Your task to perform on an android device: change notification settings in the gmail app Image 0: 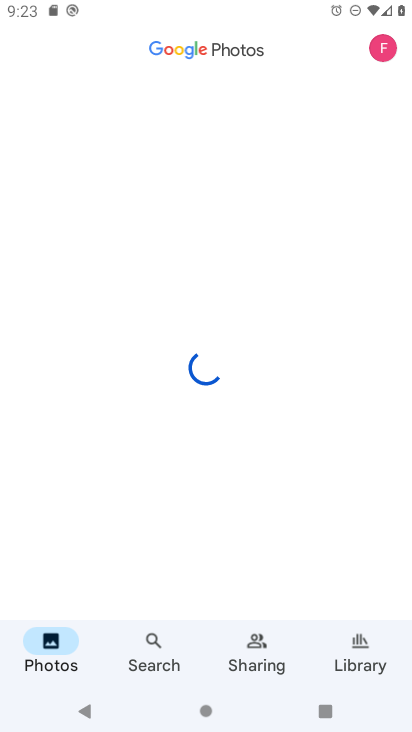
Step 0: press home button
Your task to perform on an android device: change notification settings in the gmail app Image 1: 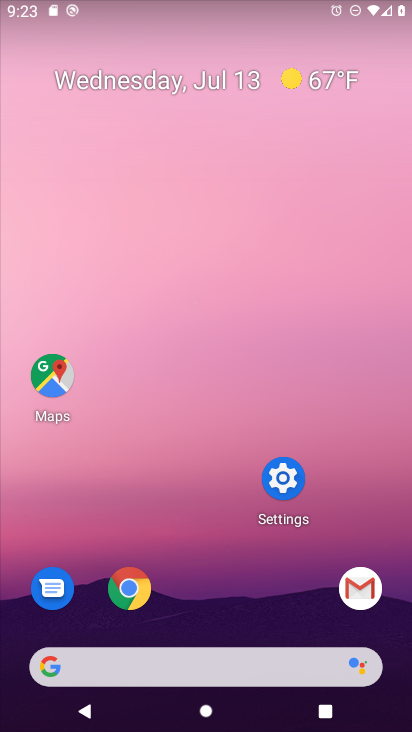
Step 1: click (354, 605)
Your task to perform on an android device: change notification settings in the gmail app Image 2: 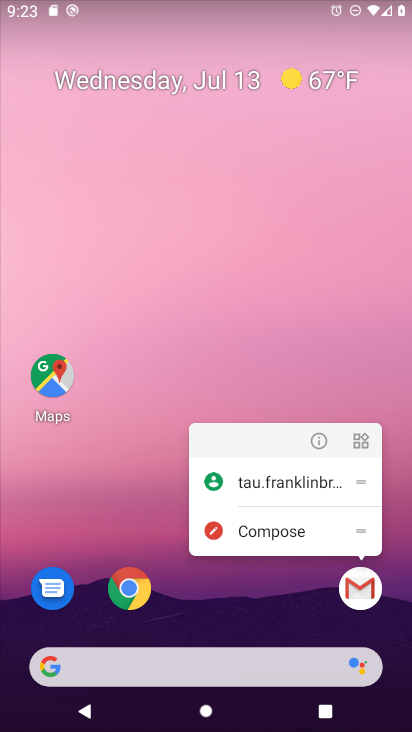
Step 2: click (347, 579)
Your task to perform on an android device: change notification settings in the gmail app Image 3: 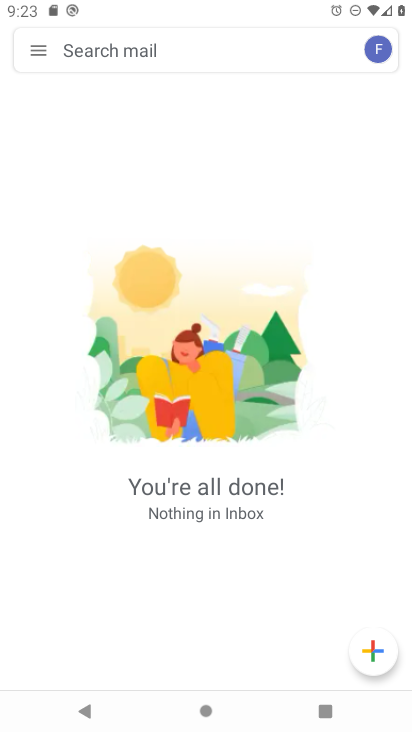
Step 3: click (45, 54)
Your task to perform on an android device: change notification settings in the gmail app Image 4: 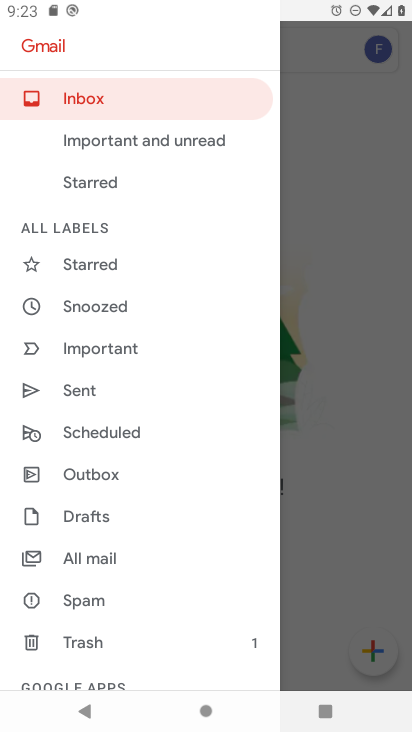
Step 4: drag from (96, 435) to (137, 381)
Your task to perform on an android device: change notification settings in the gmail app Image 5: 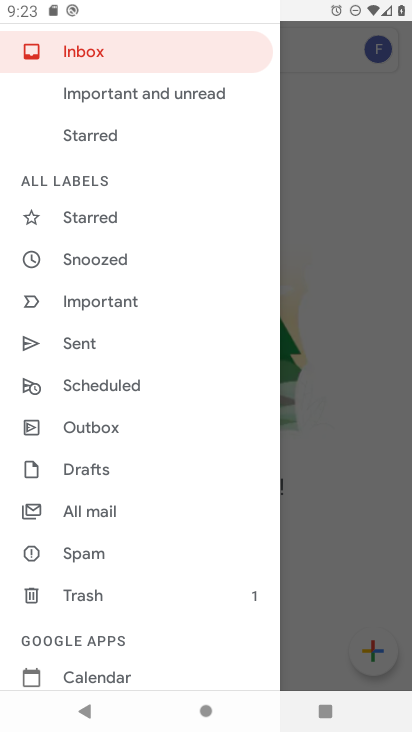
Step 5: drag from (123, 615) to (148, 526)
Your task to perform on an android device: change notification settings in the gmail app Image 6: 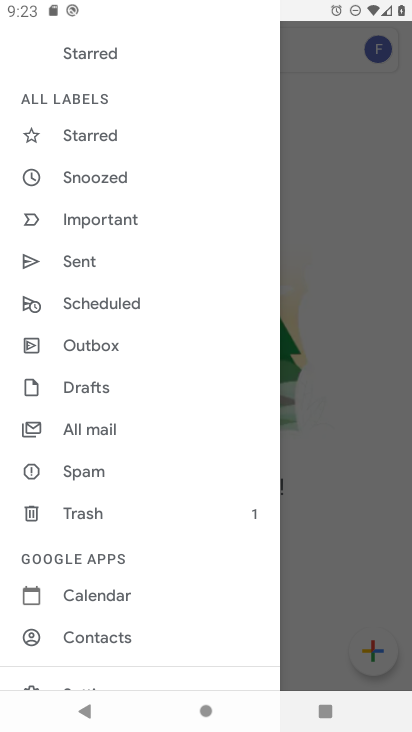
Step 6: click (110, 681)
Your task to perform on an android device: change notification settings in the gmail app Image 7: 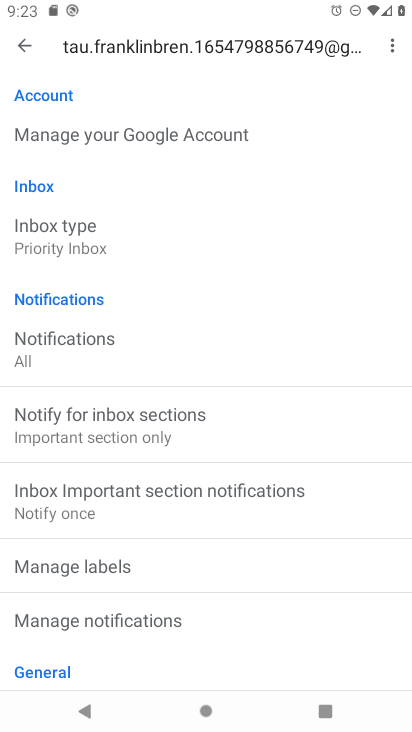
Step 7: click (79, 343)
Your task to perform on an android device: change notification settings in the gmail app Image 8: 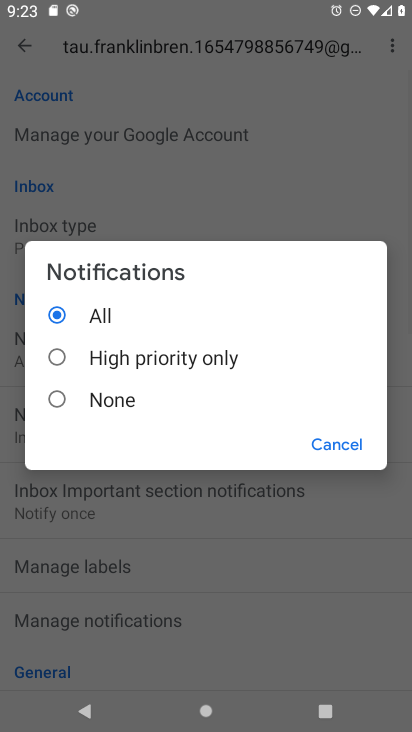
Step 8: click (99, 347)
Your task to perform on an android device: change notification settings in the gmail app Image 9: 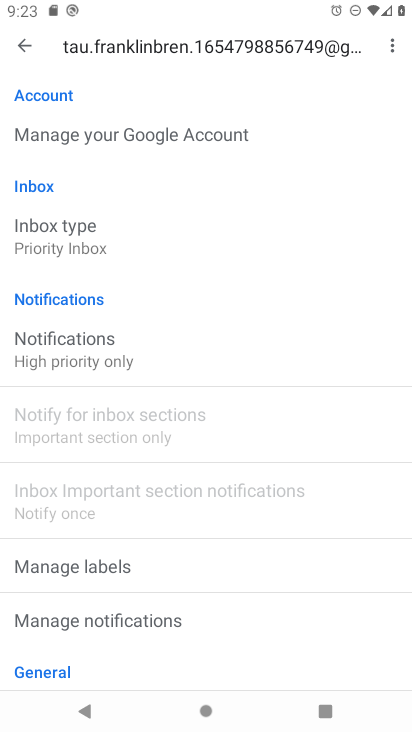
Step 9: click (105, 333)
Your task to perform on an android device: change notification settings in the gmail app Image 10: 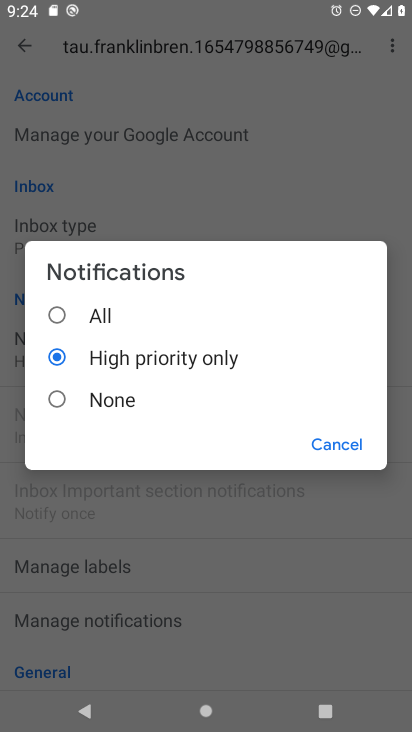
Step 10: task complete